Your task to perform on an android device: change timer sound Image 0: 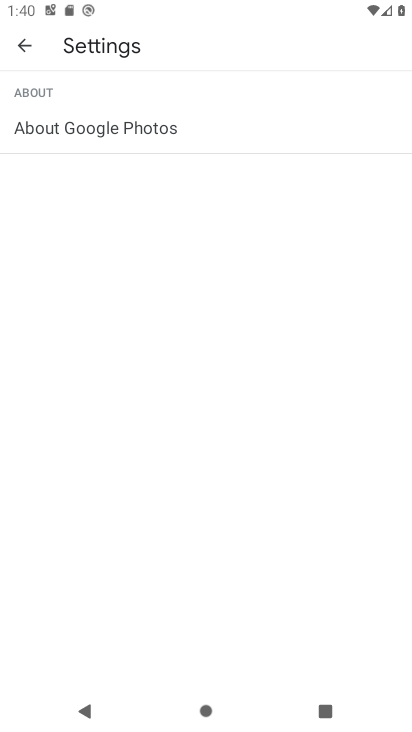
Step 0: press home button
Your task to perform on an android device: change timer sound Image 1: 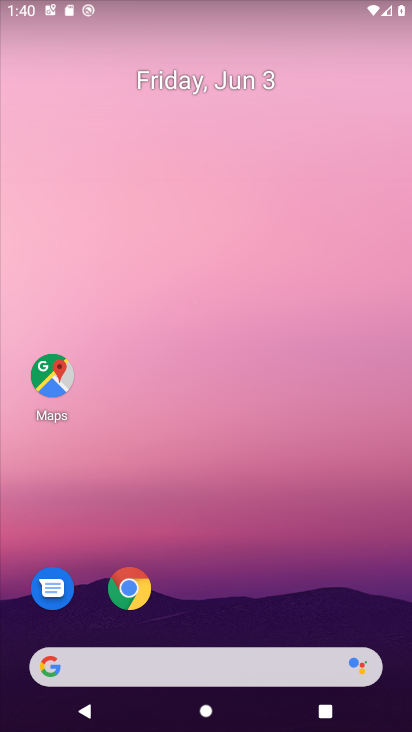
Step 1: drag from (230, 562) to (333, 7)
Your task to perform on an android device: change timer sound Image 2: 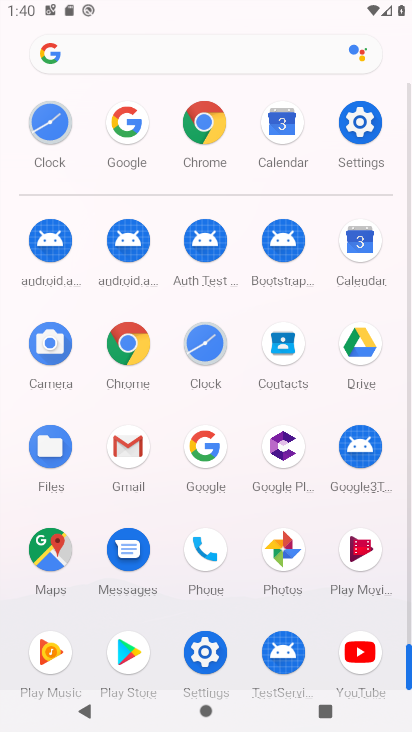
Step 2: click (209, 365)
Your task to perform on an android device: change timer sound Image 3: 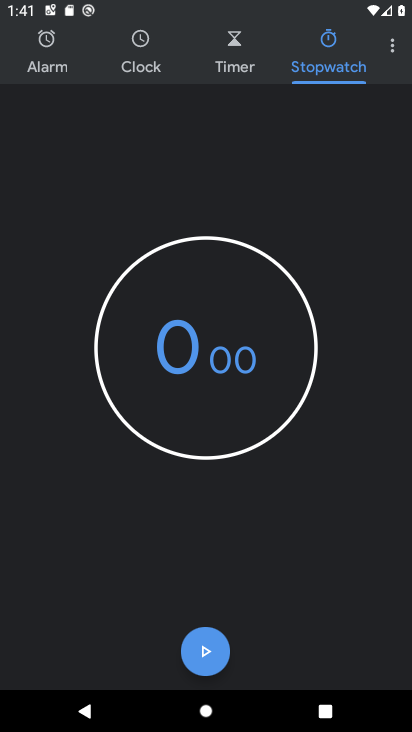
Step 3: click (396, 56)
Your task to perform on an android device: change timer sound Image 4: 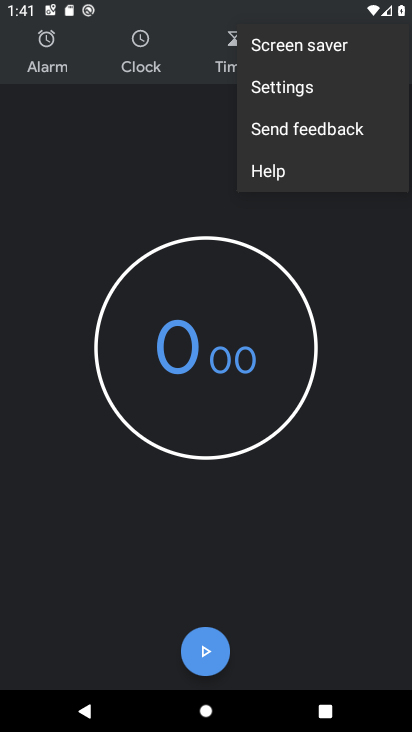
Step 4: click (295, 89)
Your task to perform on an android device: change timer sound Image 5: 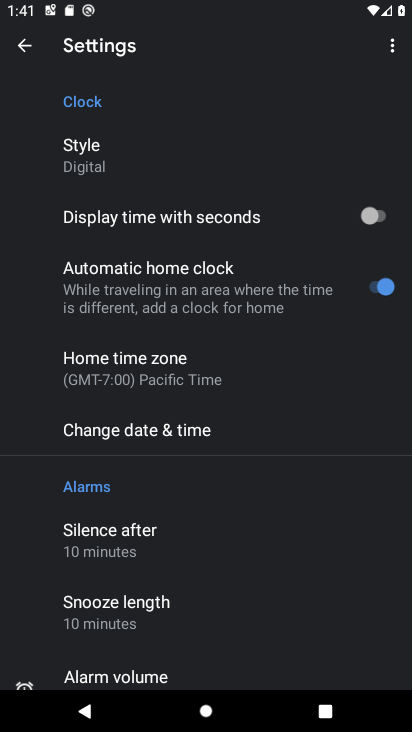
Step 5: drag from (163, 573) to (207, 113)
Your task to perform on an android device: change timer sound Image 6: 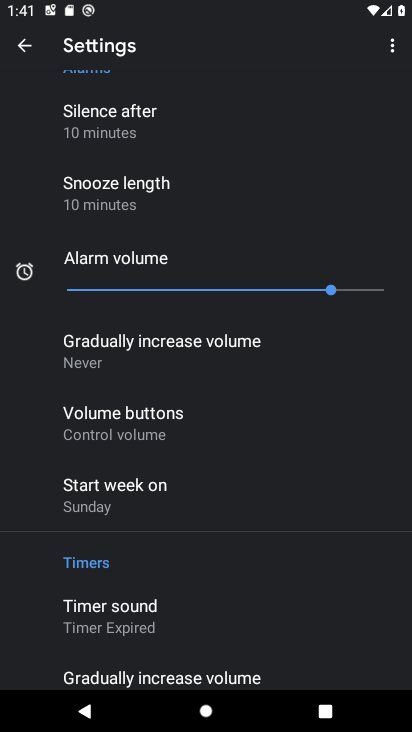
Step 6: click (132, 631)
Your task to perform on an android device: change timer sound Image 7: 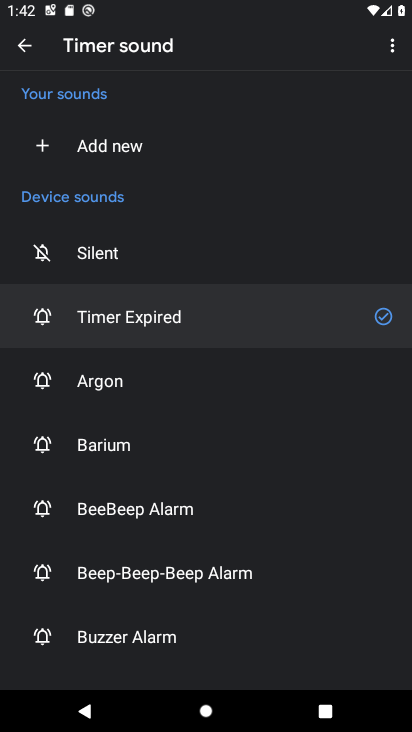
Step 7: click (108, 388)
Your task to perform on an android device: change timer sound Image 8: 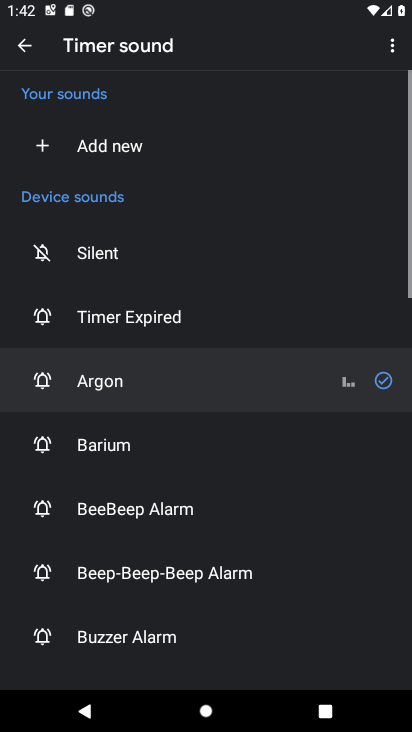
Step 8: task complete